Your task to perform on an android device: read, delete, or share a saved page in the chrome app Image 0: 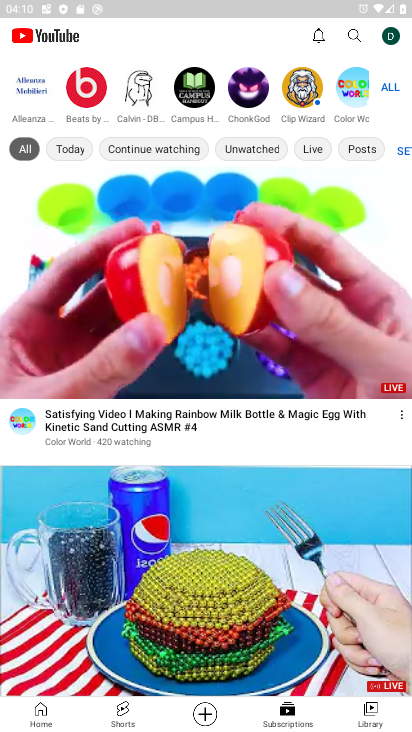
Step 0: press home button
Your task to perform on an android device: read, delete, or share a saved page in the chrome app Image 1: 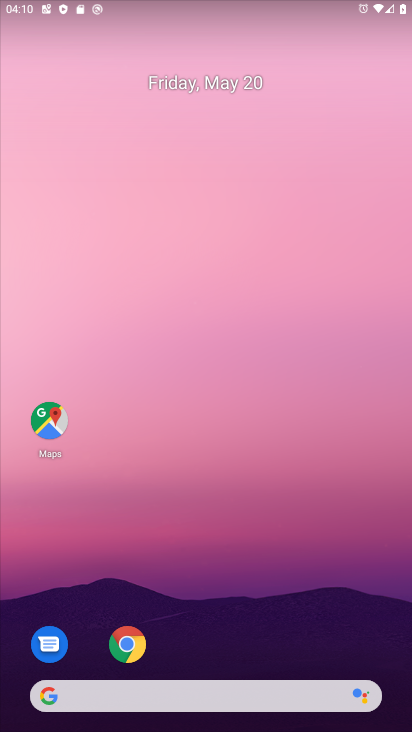
Step 1: click (121, 639)
Your task to perform on an android device: read, delete, or share a saved page in the chrome app Image 2: 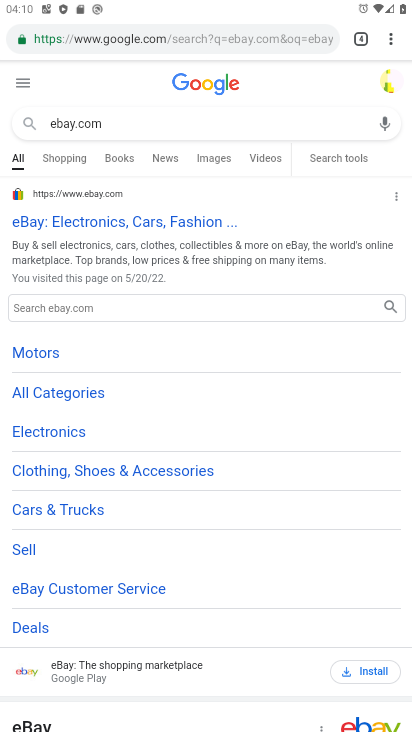
Step 2: click (394, 37)
Your task to perform on an android device: read, delete, or share a saved page in the chrome app Image 3: 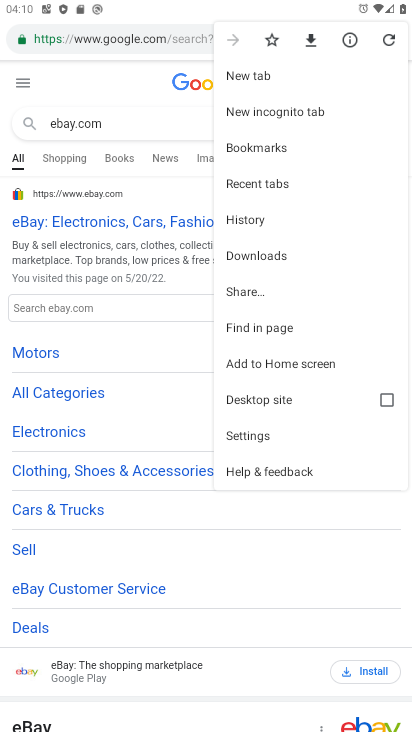
Step 3: click (244, 257)
Your task to perform on an android device: read, delete, or share a saved page in the chrome app Image 4: 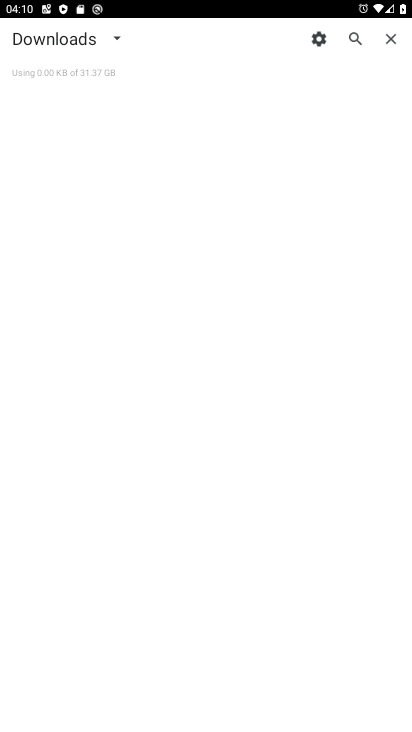
Step 4: task complete